Your task to perform on an android device: Clear the cart on walmart.com. Image 0: 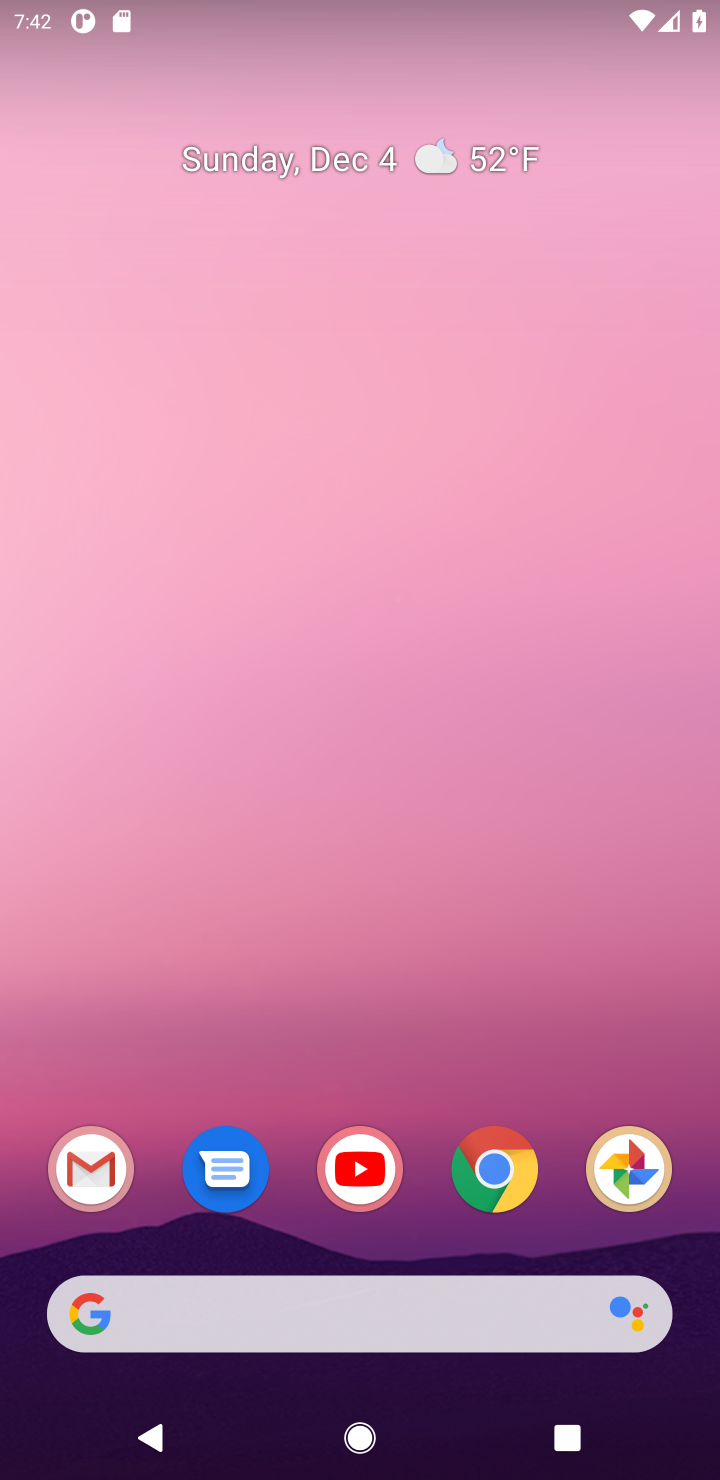
Step 0: click (489, 1155)
Your task to perform on an android device: Clear the cart on walmart.com. Image 1: 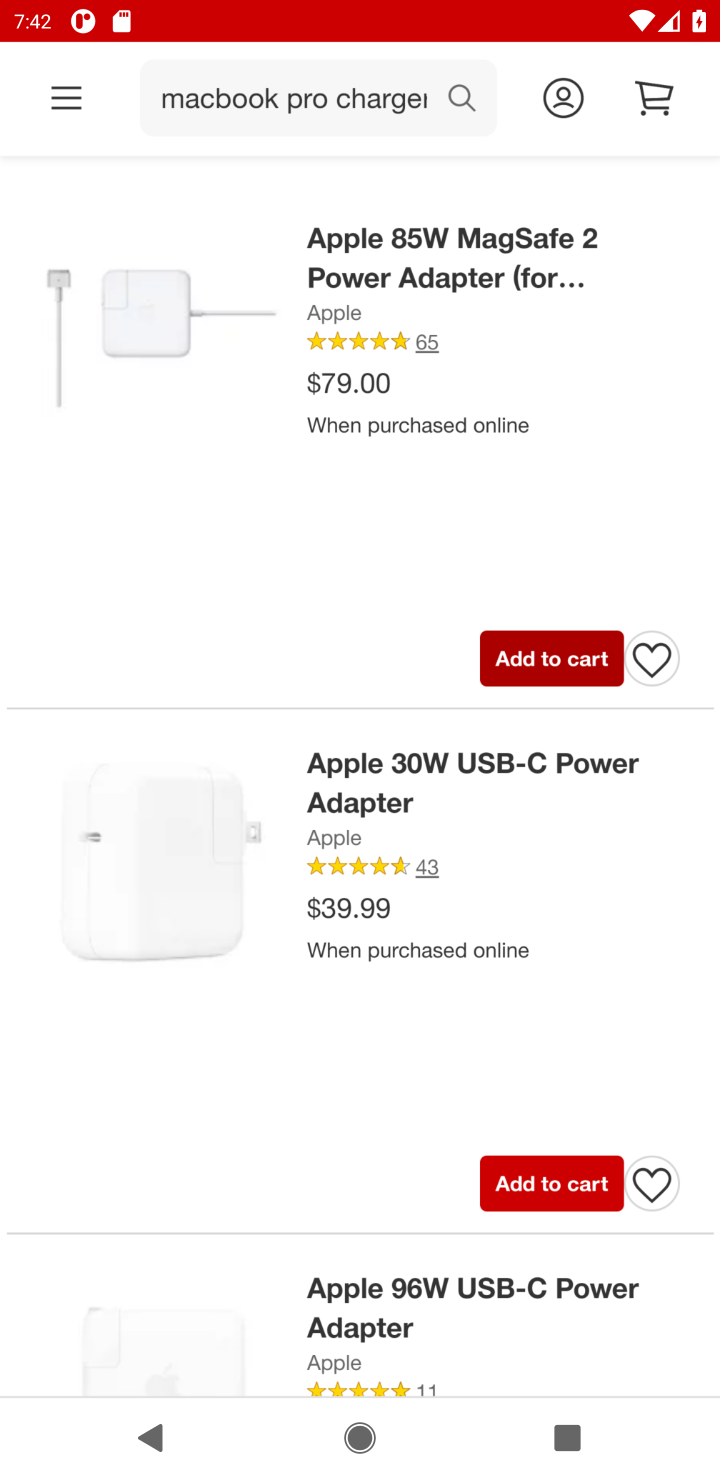
Step 1: click (373, 93)
Your task to perform on an android device: Clear the cart on walmart.com. Image 2: 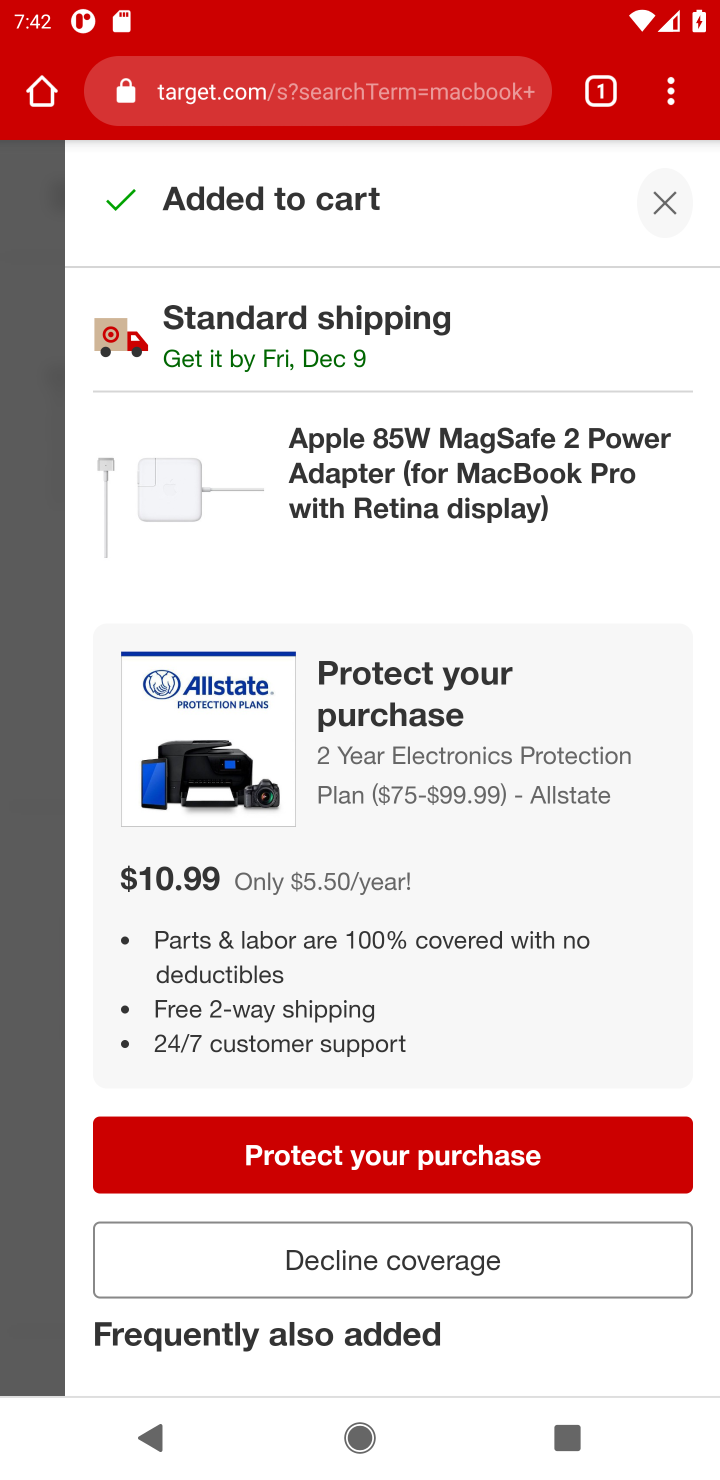
Step 2: click (354, 79)
Your task to perform on an android device: Clear the cart on walmart.com. Image 3: 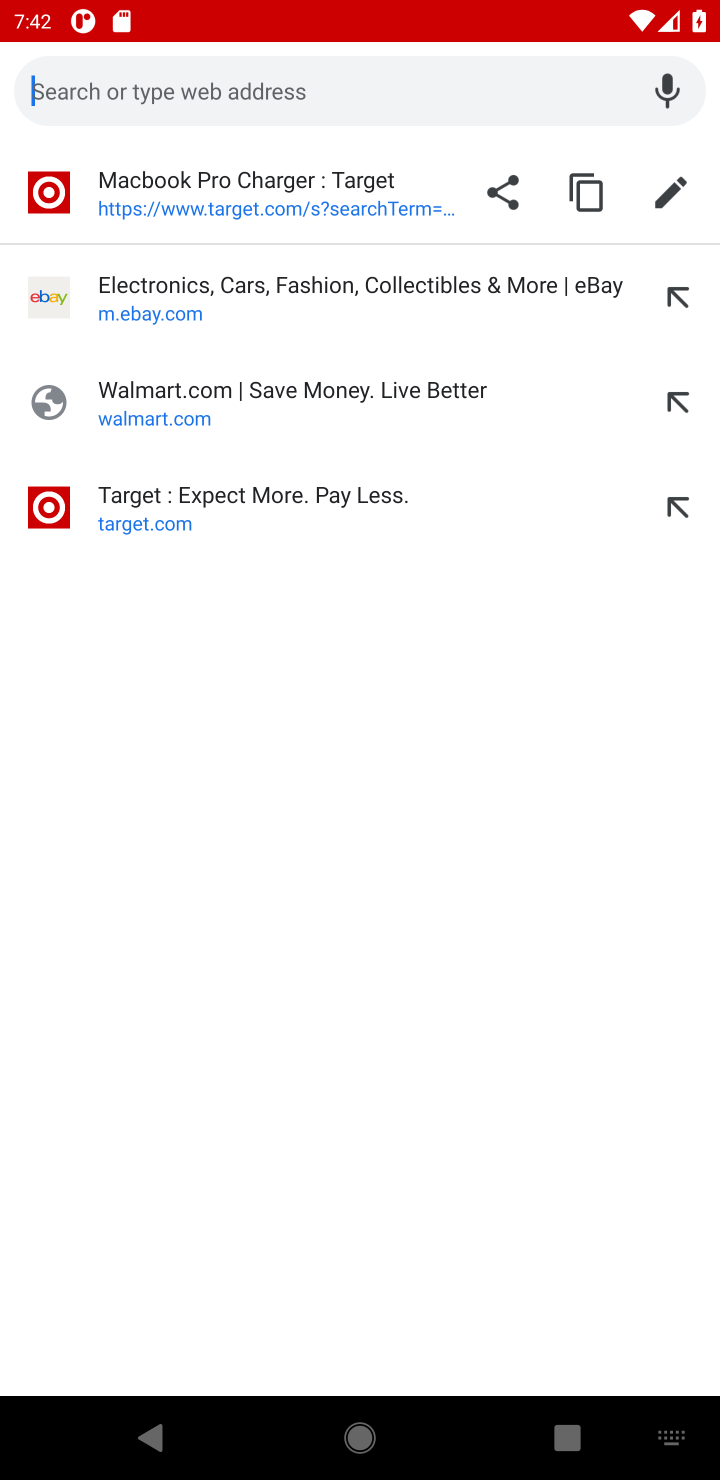
Step 3: click (322, 402)
Your task to perform on an android device: Clear the cart on walmart.com. Image 4: 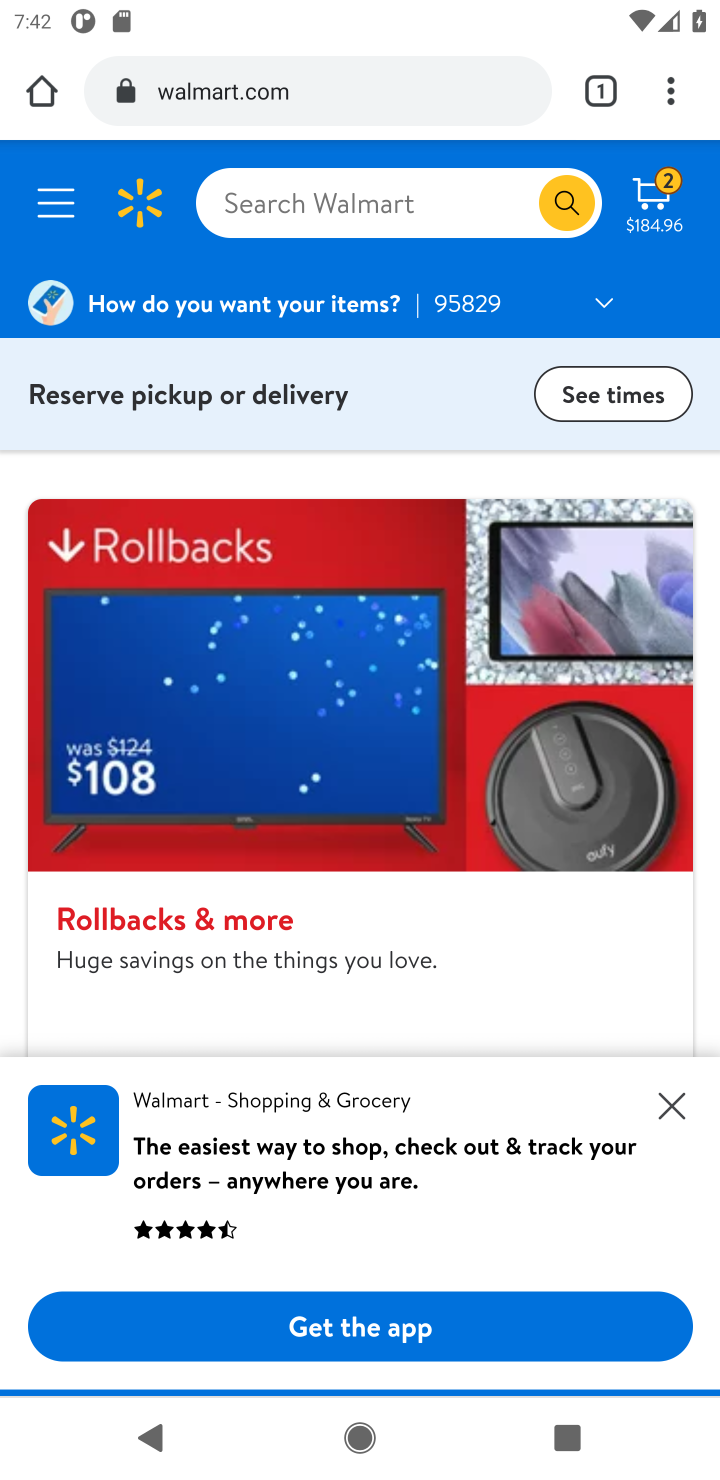
Step 4: task complete